Your task to perform on an android device: turn off location history Image 0: 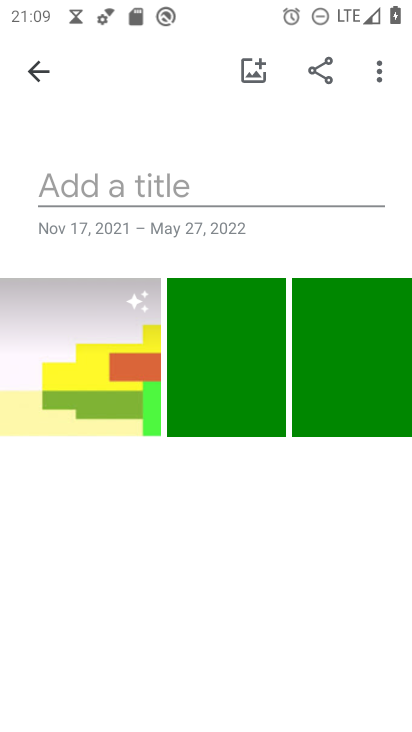
Step 0: press home button
Your task to perform on an android device: turn off location history Image 1: 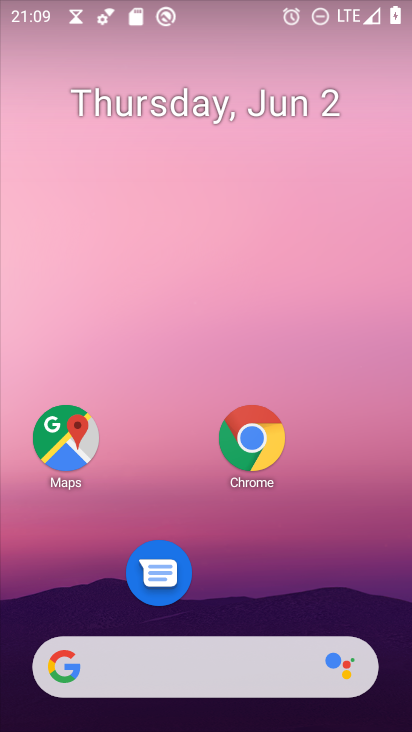
Step 1: click (67, 446)
Your task to perform on an android device: turn off location history Image 2: 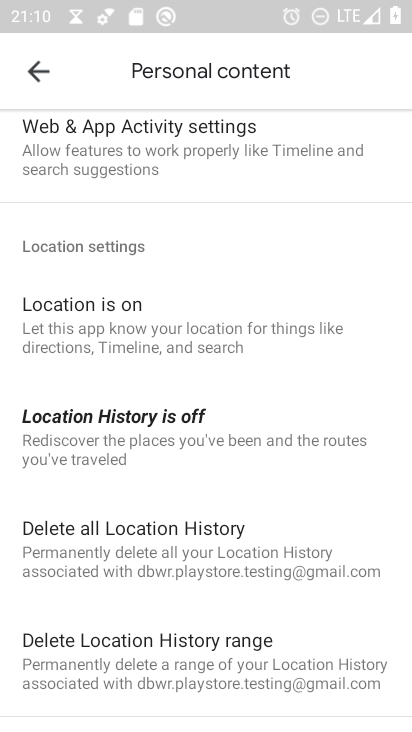
Step 2: click (195, 436)
Your task to perform on an android device: turn off location history Image 3: 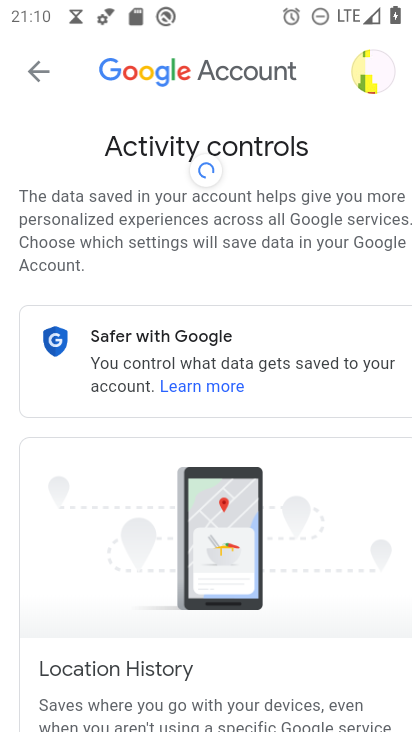
Step 3: drag from (260, 637) to (408, 57)
Your task to perform on an android device: turn off location history Image 4: 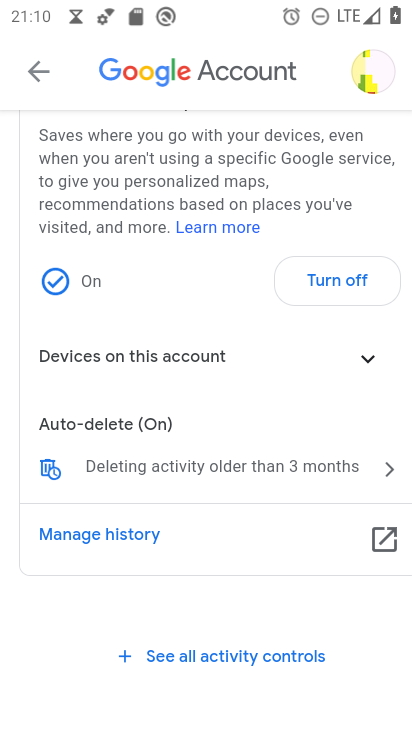
Step 4: click (353, 281)
Your task to perform on an android device: turn off location history Image 5: 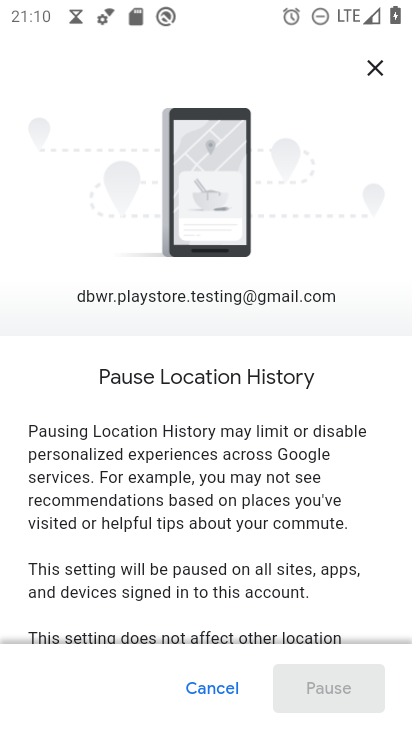
Step 5: drag from (265, 461) to (408, 52)
Your task to perform on an android device: turn off location history Image 6: 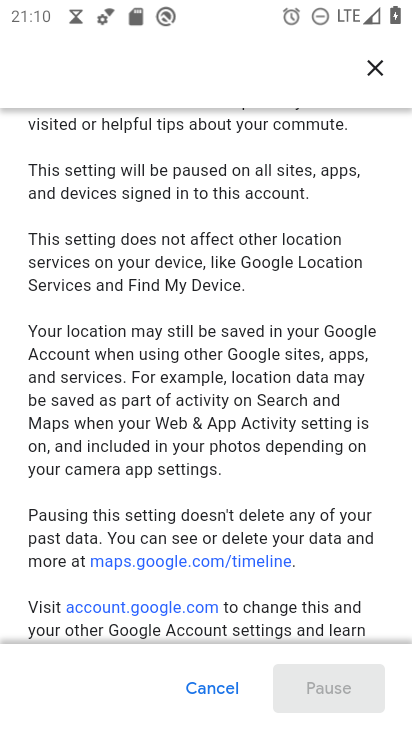
Step 6: drag from (260, 616) to (360, 80)
Your task to perform on an android device: turn off location history Image 7: 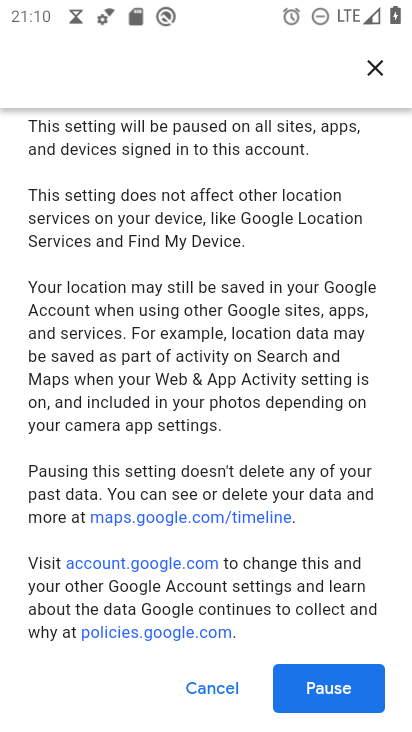
Step 7: click (341, 697)
Your task to perform on an android device: turn off location history Image 8: 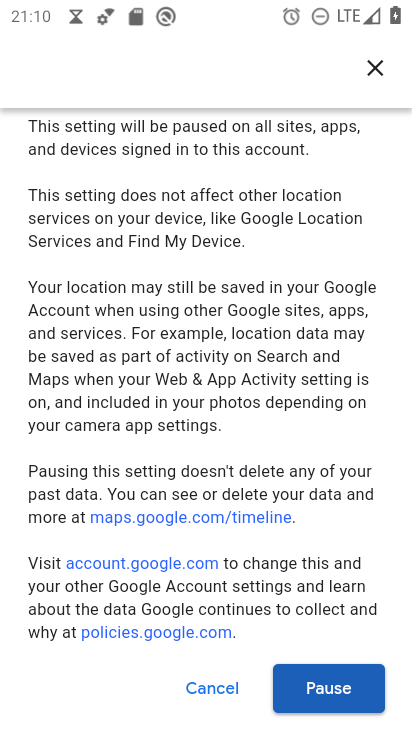
Step 8: click (323, 690)
Your task to perform on an android device: turn off location history Image 9: 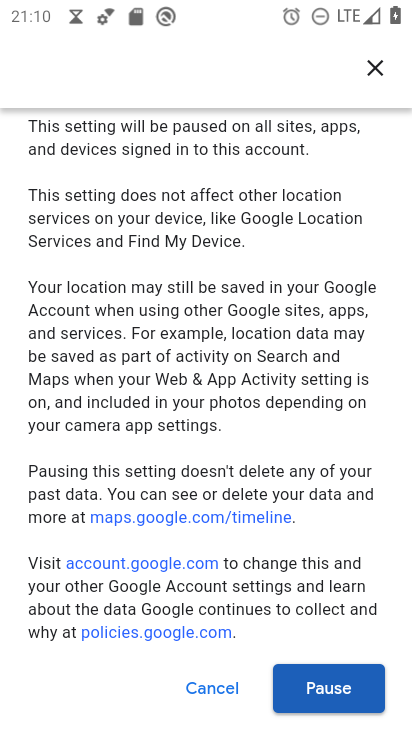
Step 9: click (332, 692)
Your task to perform on an android device: turn off location history Image 10: 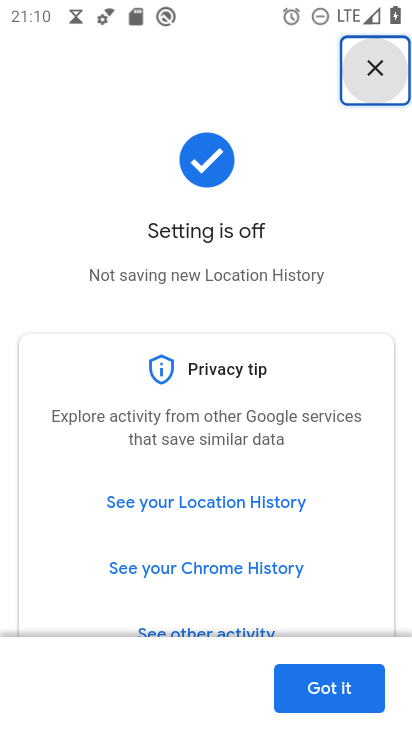
Step 10: click (323, 682)
Your task to perform on an android device: turn off location history Image 11: 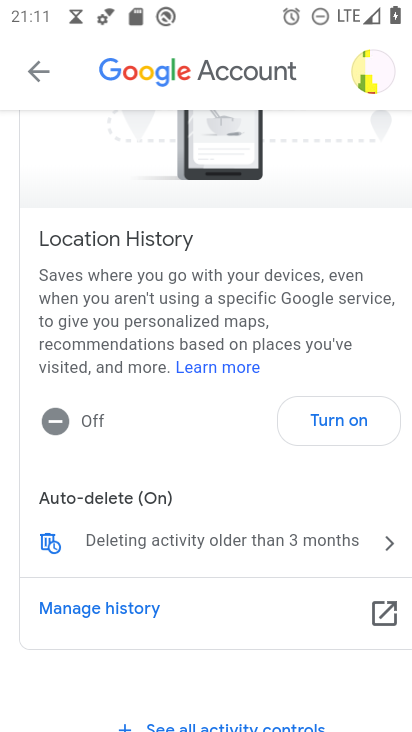
Step 11: task complete